Your task to perform on an android device: Open Google Chrome and click the shortcut for Amazon.com Image 0: 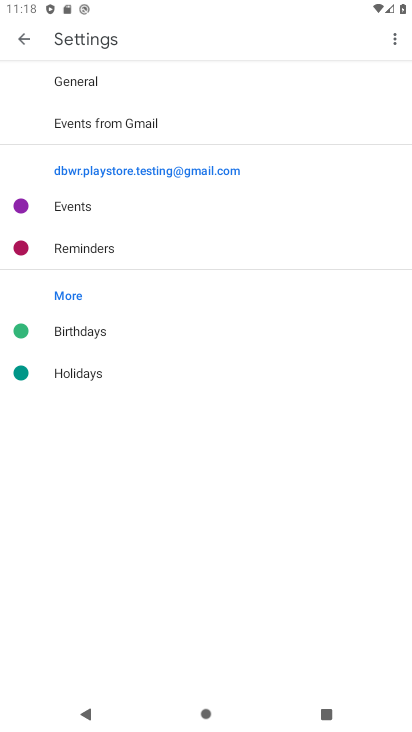
Step 0: press home button
Your task to perform on an android device: Open Google Chrome and click the shortcut for Amazon.com Image 1: 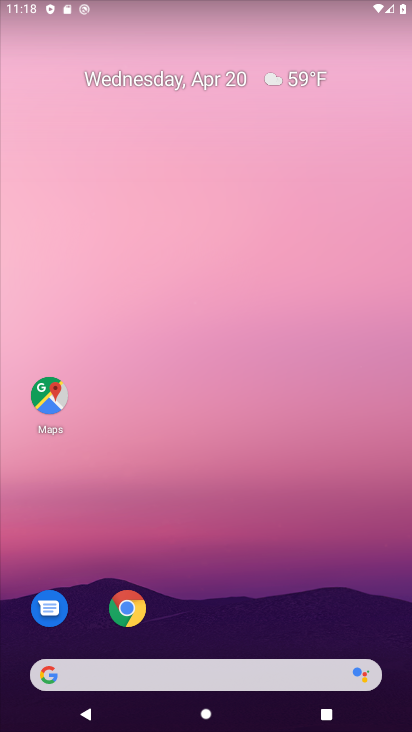
Step 1: click (127, 608)
Your task to perform on an android device: Open Google Chrome and click the shortcut for Amazon.com Image 2: 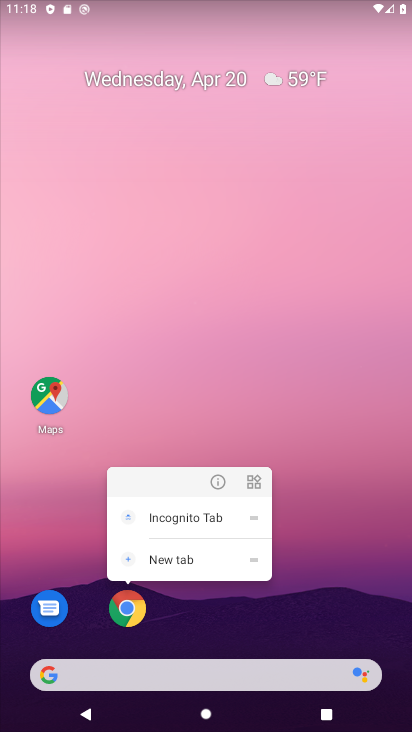
Step 2: click (293, 603)
Your task to perform on an android device: Open Google Chrome and click the shortcut for Amazon.com Image 3: 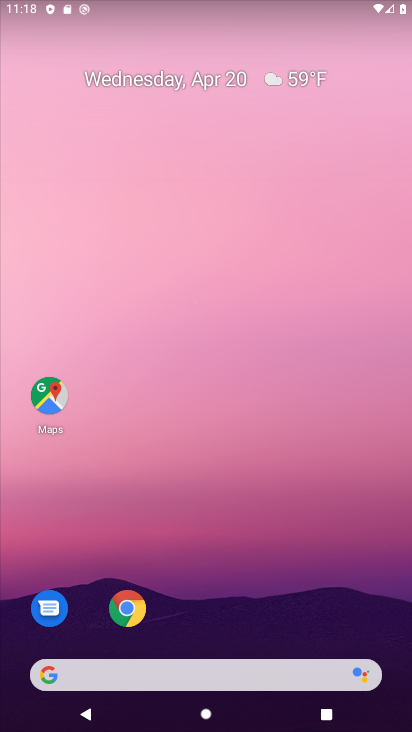
Step 3: click (126, 612)
Your task to perform on an android device: Open Google Chrome and click the shortcut for Amazon.com Image 4: 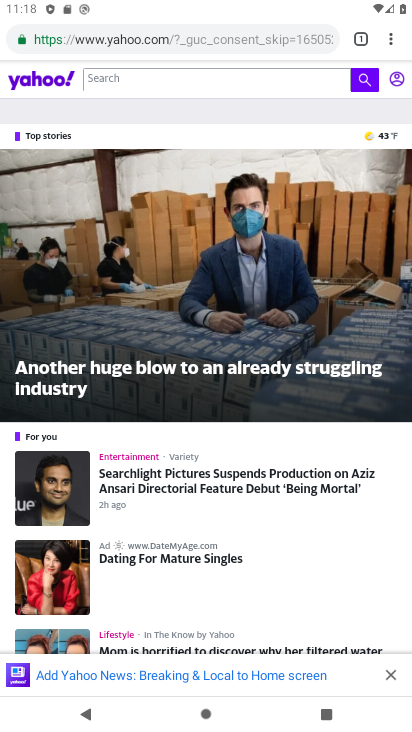
Step 4: click (389, 39)
Your task to perform on an android device: Open Google Chrome and click the shortcut for Amazon.com Image 5: 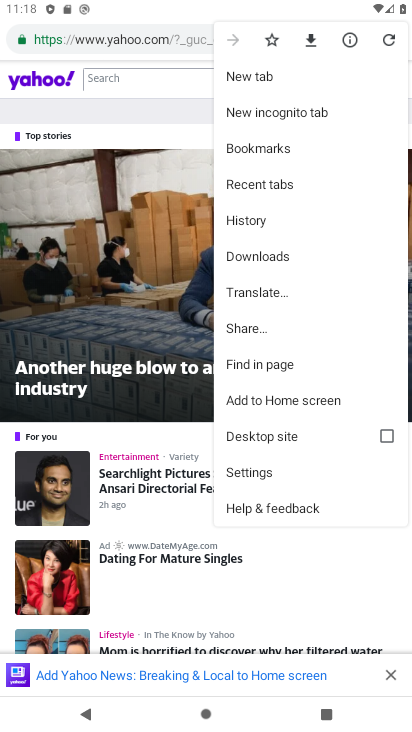
Step 5: click (262, 469)
Your task to perform on an android device: Open Google Chrome and click the shortcut for Amazon.com Image 6: 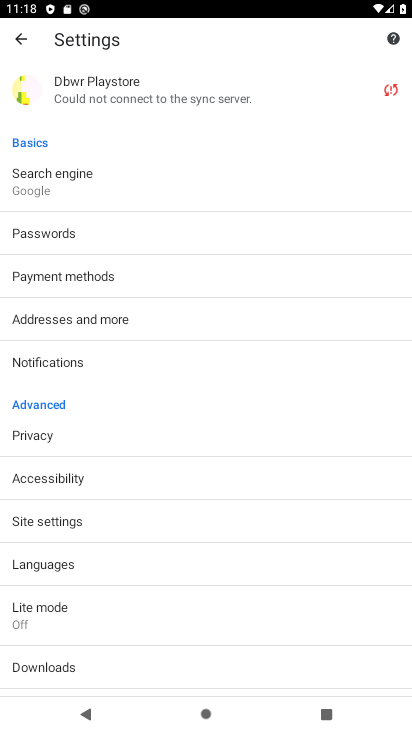
Step 6: press back button
Your task to perform on an android device: Open Google Chrome and click the shortcut for Amazon.com Image 7: 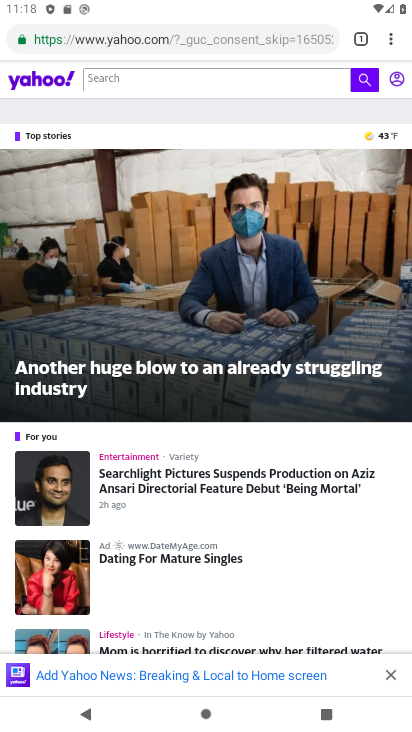
Step 7: press back button
Your task to perform on an android device: Open Google Chrome and click the shortcut for Amazon.com Image 8: 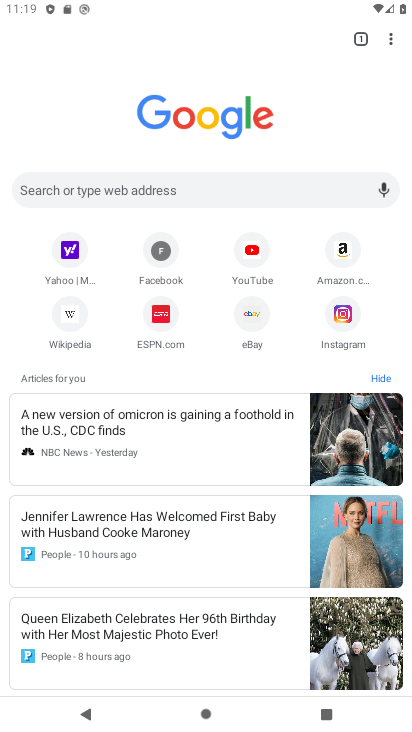
Step 8: click (347, 249)
Your task to perform on an android device: Open Google Chrome and click the shortcut for Amazon.com Image 9: 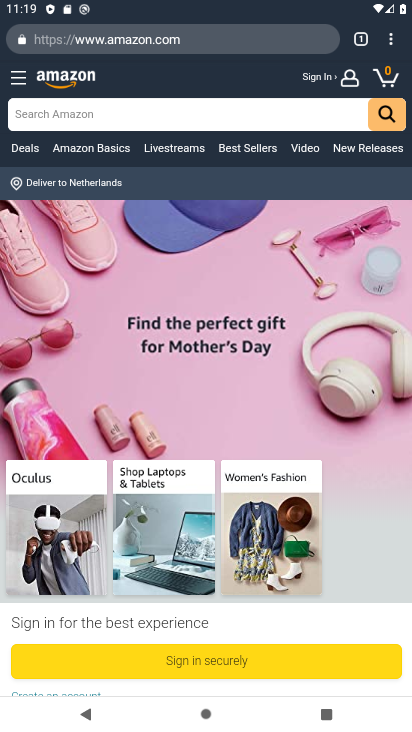
Step 9: task complete